Your task to perform on an android device: Is it going to rain tomorrow? Image 0: 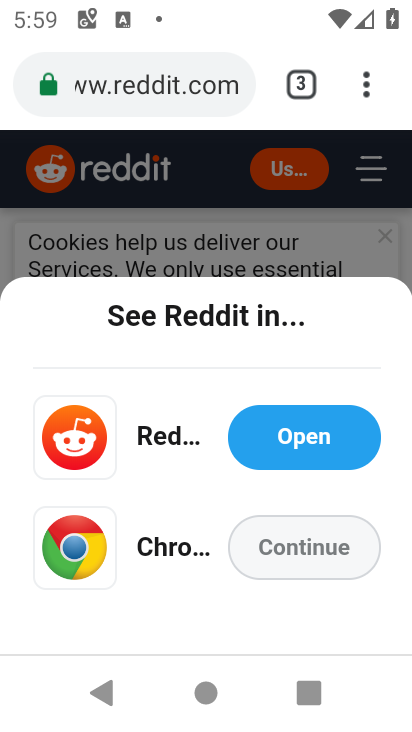
Step 0: press home button
Your task to perform on an android device: Is it going to rain tomorrow? Image 1: 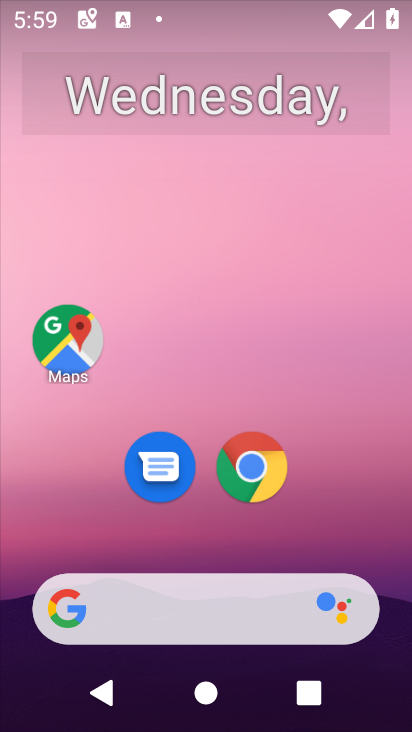
Step 1: drag from (284, 414) to (168, 12)
Your task to perform on an android device: Is it going to rain tomorrow? Image 2: 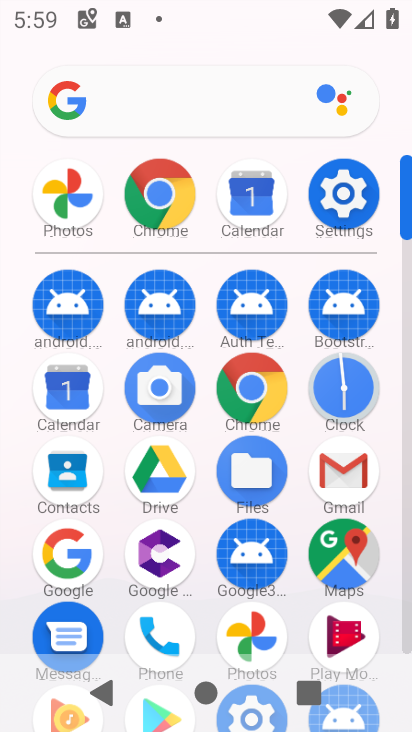
Step 2: click (75, 559)
Your task to perform on an android device: Is it going to rain tomorrow? Image 3: 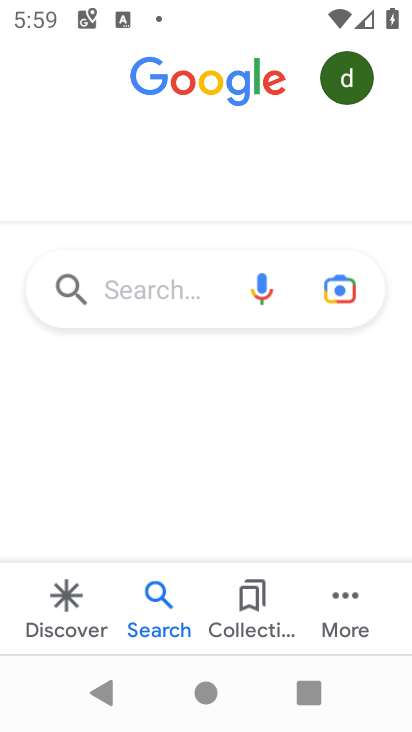
Step 3: click (157, 303)
Your task to perform on an android device: Is it going to rain tomorrow? Image 4: 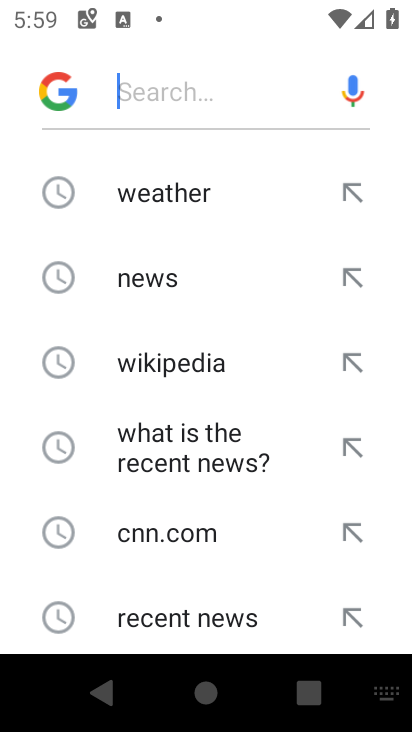
Step 4: click (196, 189)
Your task to perform on an android device: Is it going to rain tomorrow? Image 5: 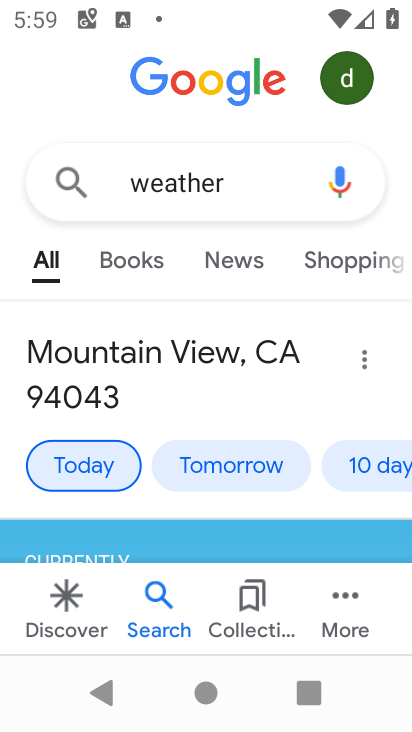
Step 5: click (251, 455)
Your task to perform on an android device: Is it going to rain tomorrow? Image 6: 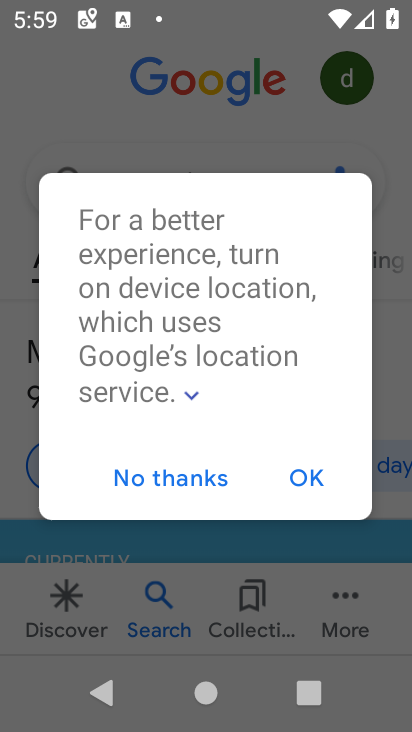
Step 6: click (309, 477)
Your task to perform on an android device: Is it going to rain tomorrow? Image 7: 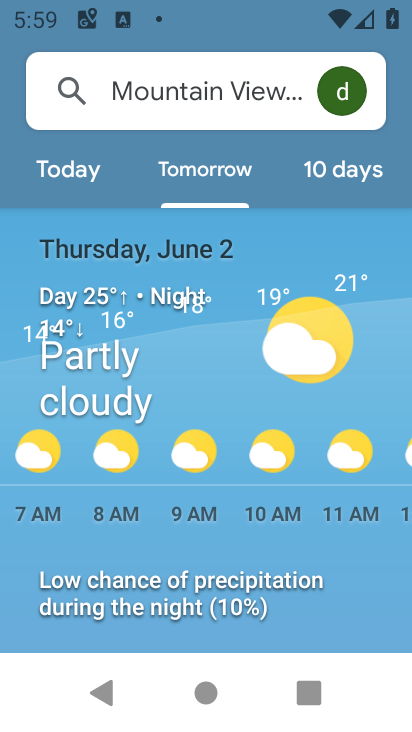
Step 7: task complete